Your task to perform on an android device: see creations saved in the google photos Image 0: 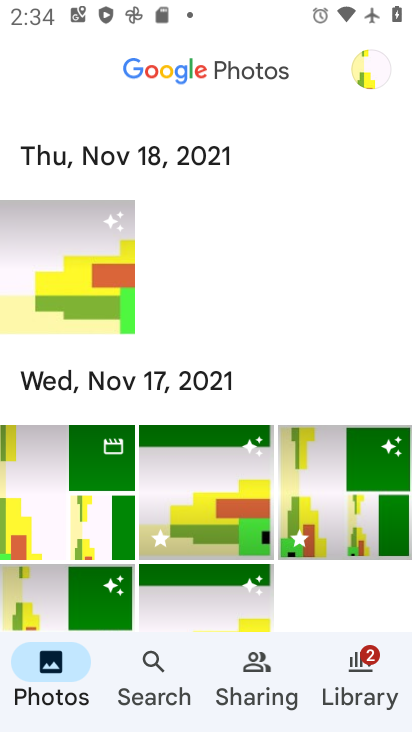
Step 0: task complete